Your task to perform on an android device: Go to Yahoo.com Image 0: 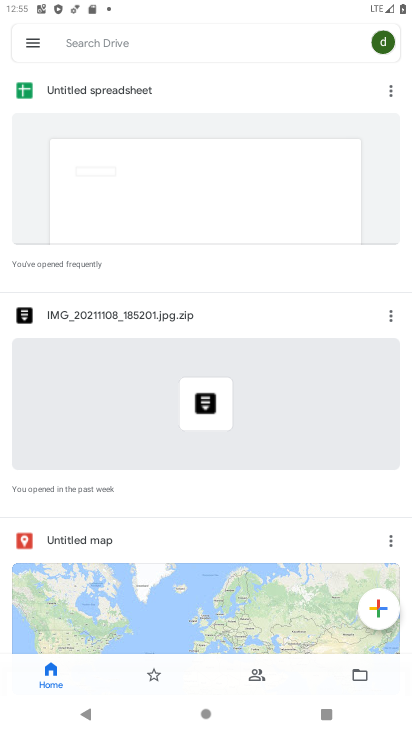
Step 0: press home button
Your task to perform on an android device: Go to Yahoo.com Image 1: 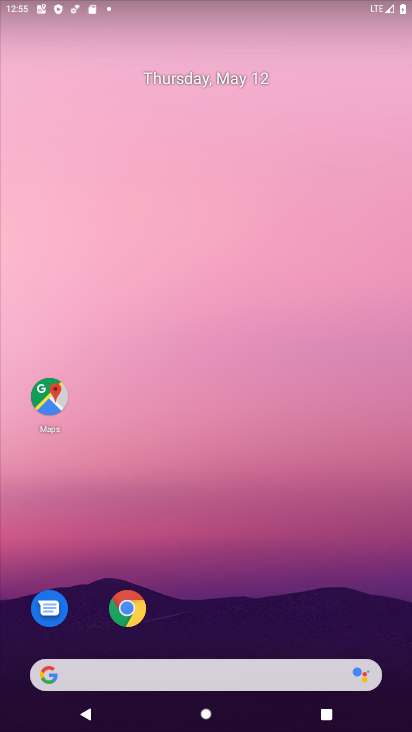
Step 1: click (134, 611)
Your task to perform on an android device: Go to Yahoo.com Image 2: 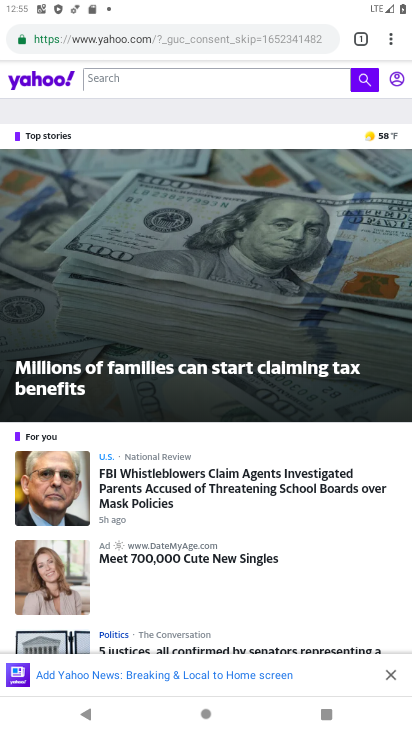
Step 2: task complete